Your task to perform on an android device: Open Google Maps Image 0: 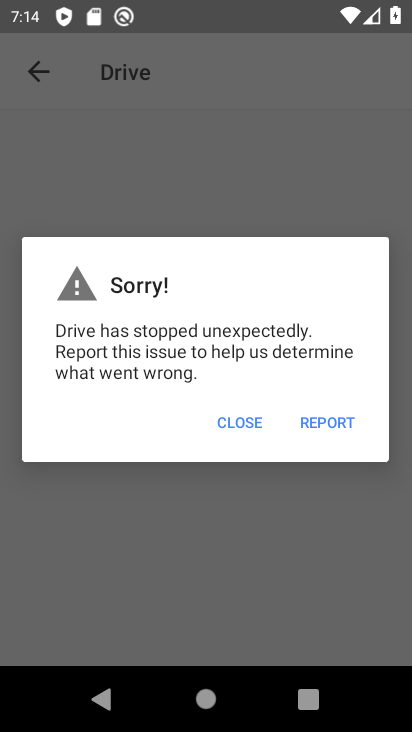
Step 0: press home button
Your task to perform on an android device: Open Google Maps Image 1: 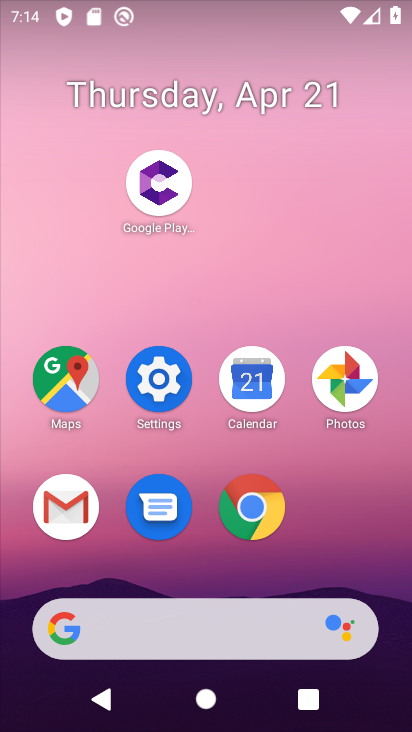
Step 1: click (58, 395)
Your task to perform on an android device: Open Google Maps Image 2: 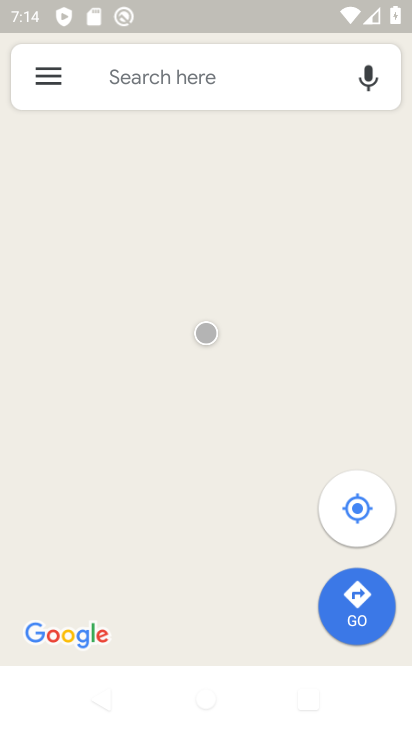
Step 2: task complete